Your task to perform on an android device: Go to internet settings Image 0: 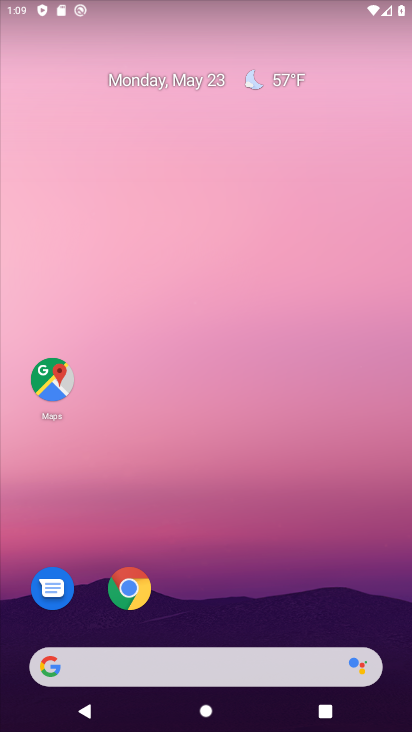
Step 0: drag from (214, 621) to (188, 156)
Your task to perform on an android device: Go to internet settings Image 1: 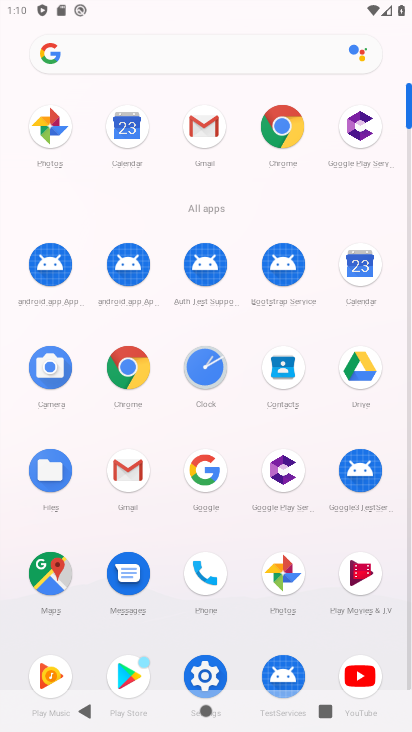
Step 1: click (210, 663)
Your task to perform on an android device: Go to internet settings Image 2: 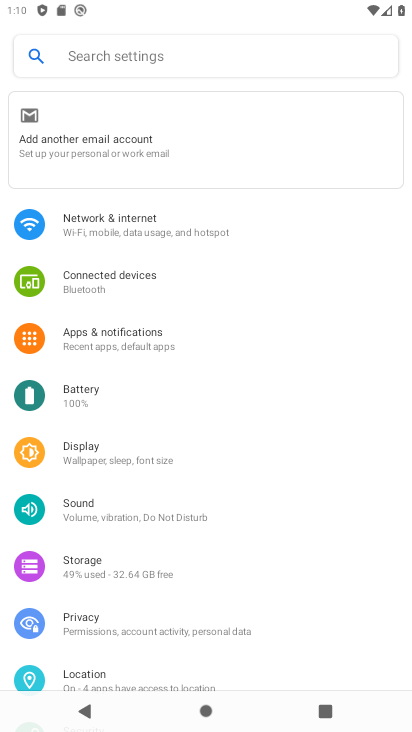
Step 2: click (271, 233)
Your task to perform on an android device: Go to internet settings Image 3: 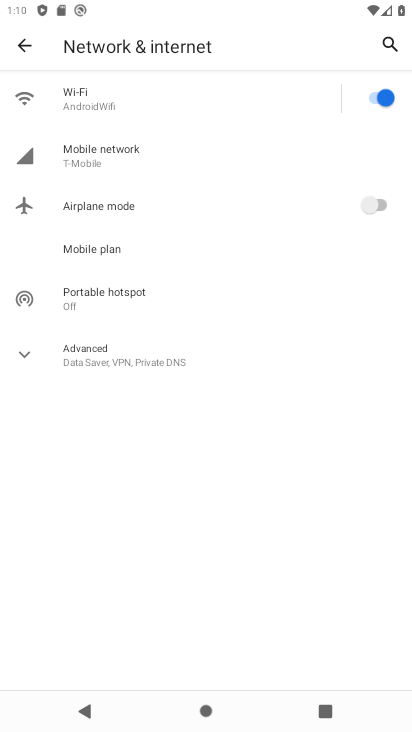
Step 3: task complete